Your task to perform on an android device: Go to Android settings Image 0: 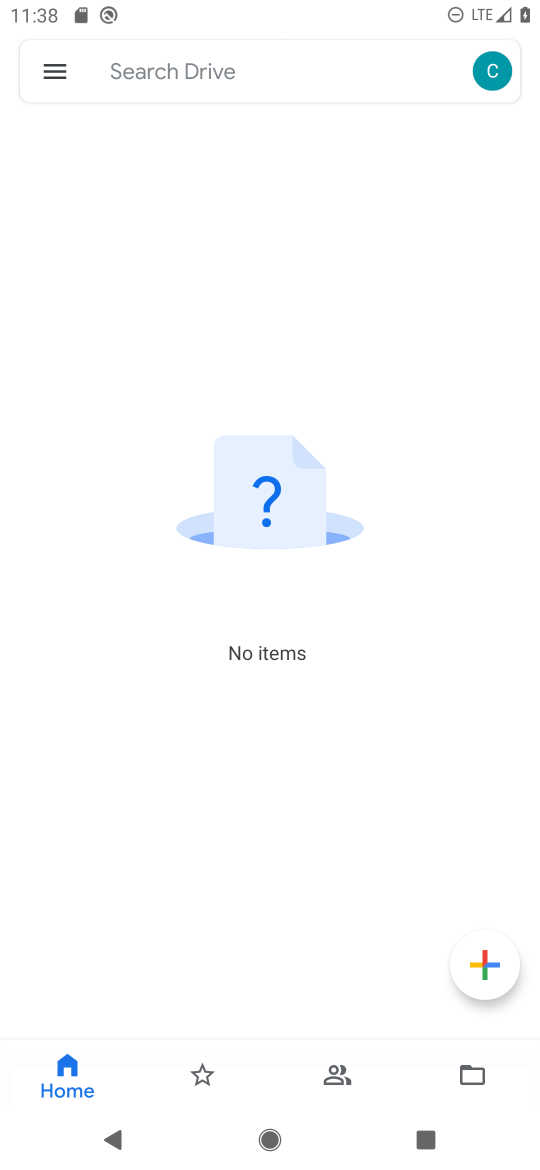
Step 0: press home button
Your task to perform on an android device: Go to Android settings Image 1: 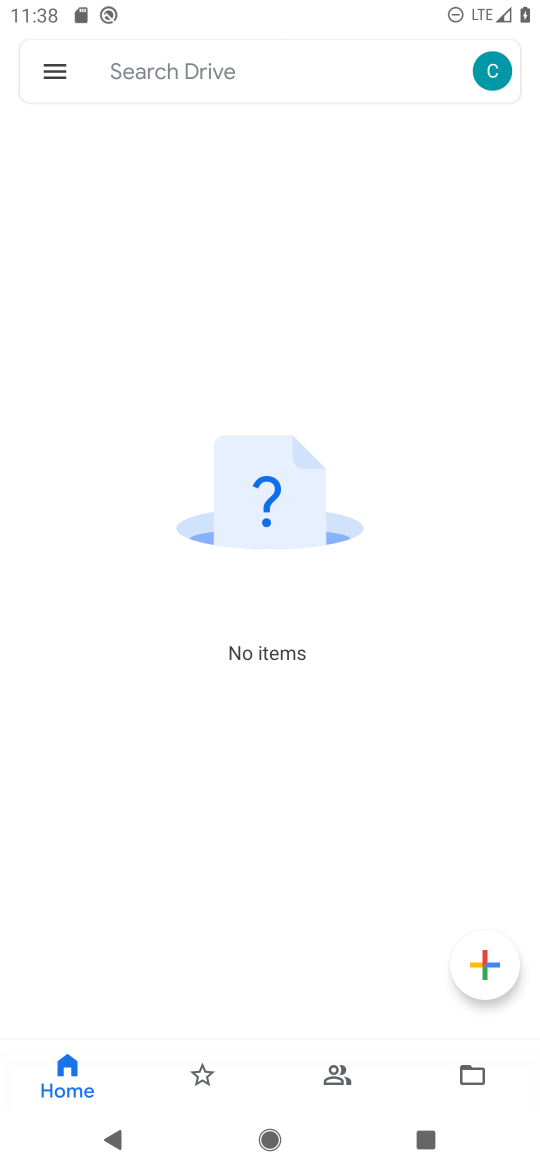
Step 1: press home button
Your task to perform on an android device: Go to Android settings Image 2: 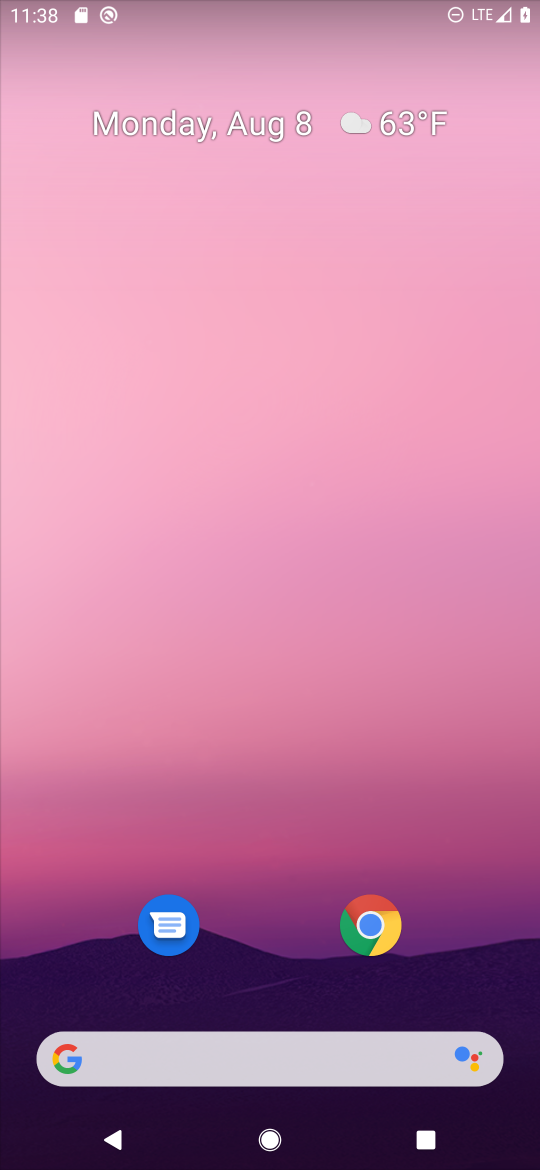
Step 2: drag from (259, 929) to (289, 334)
Your task to perform on an android device: Go to Android settings Image 3: 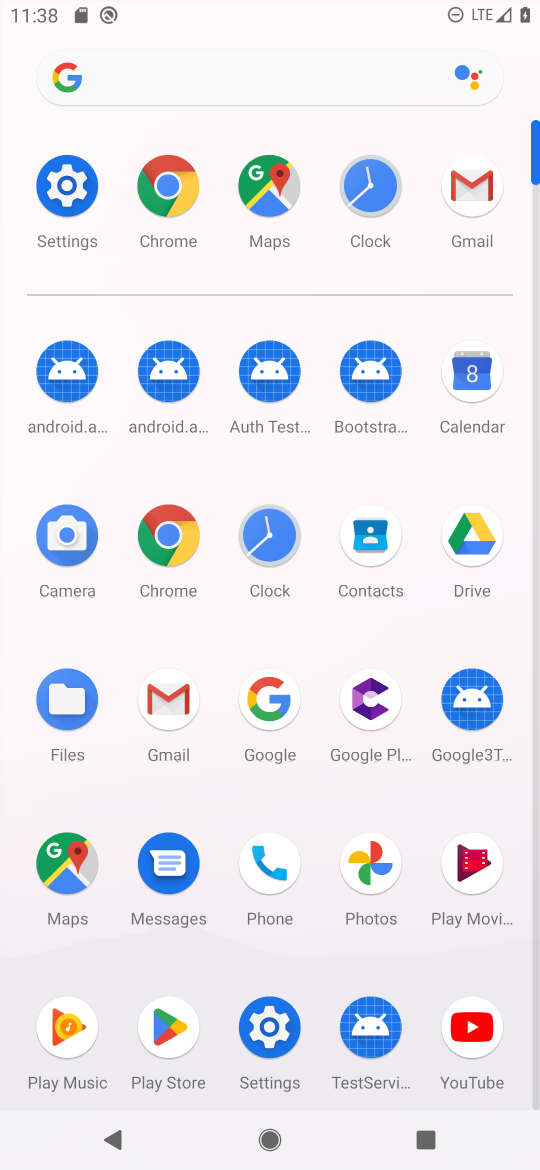
Step 3: click (249, 1022)
Your task to perform on an android device: Go to Android settings Image 4: 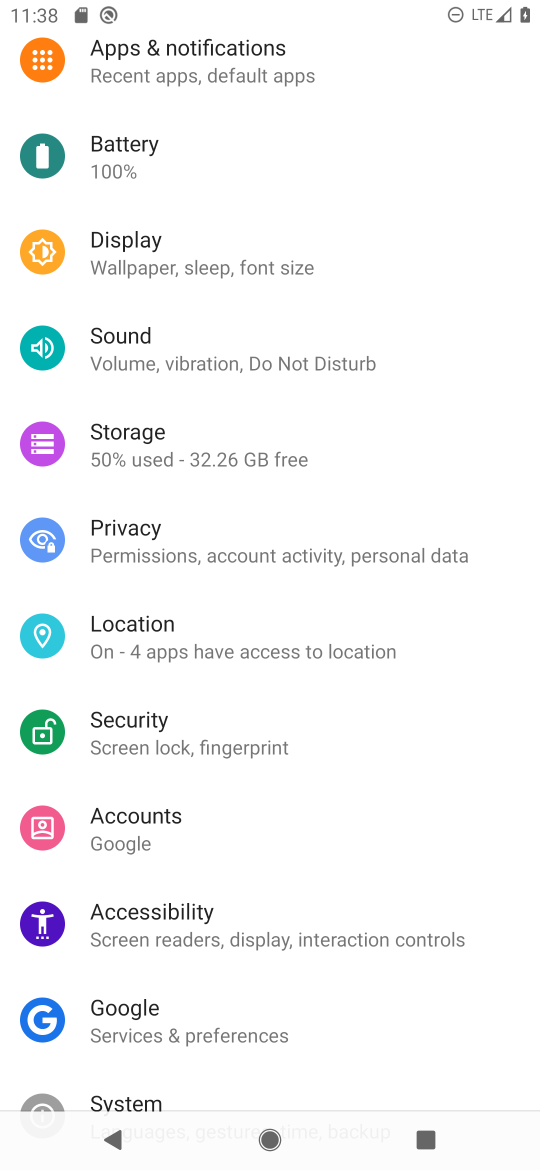
Step 4: task complete